Your task to perform on an android device: uninstall "Chime – Mobile Banking" Image 0: 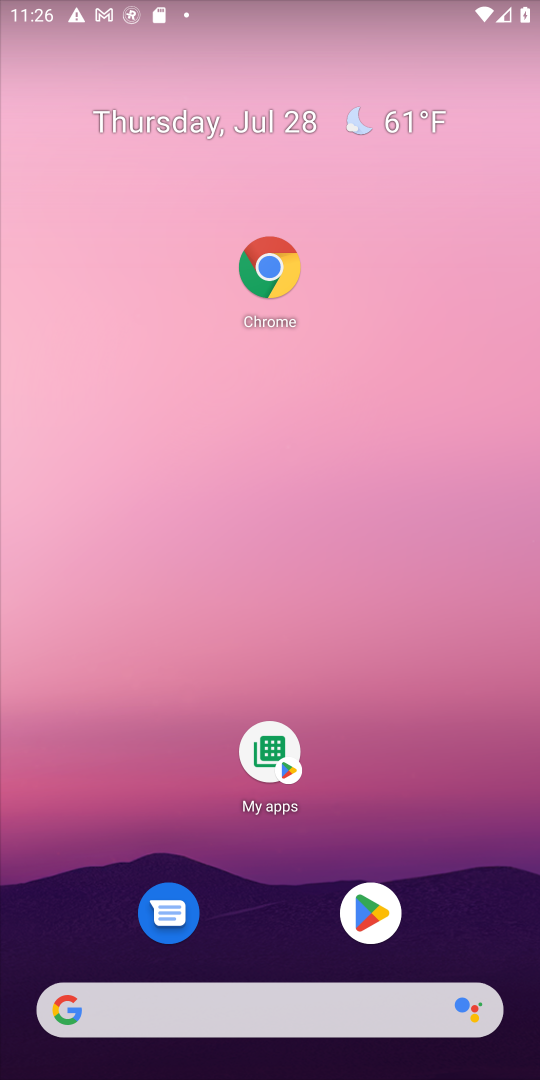
Step 0: click (367, 905)
Your task to perform on an android device: uninstall "Chime – Mobile Banking" Image 1: 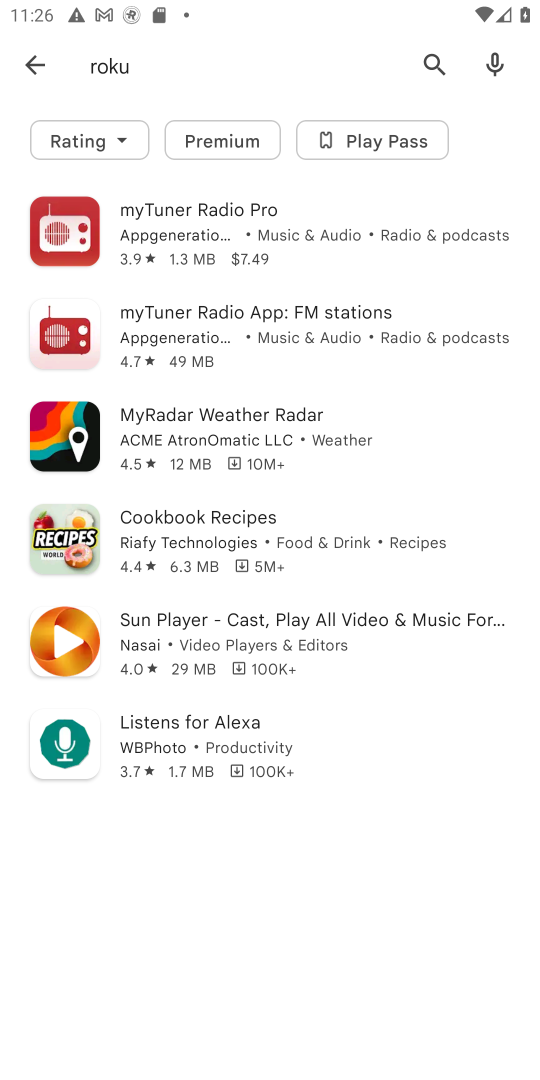
Step 1: click (442, 61)
Your task to perform on an android device: uninstall "Chime – Mobile Banking" Image 2: 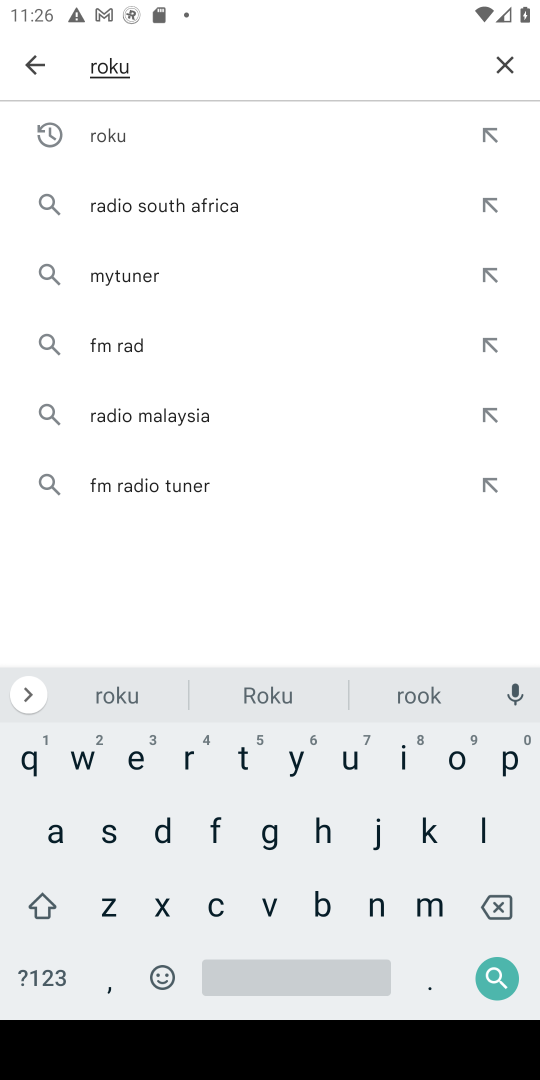
Step 2: click (502, 65)
Your task to perform on an android device: uninstall "Chime – Mobile Banking" Image 3: 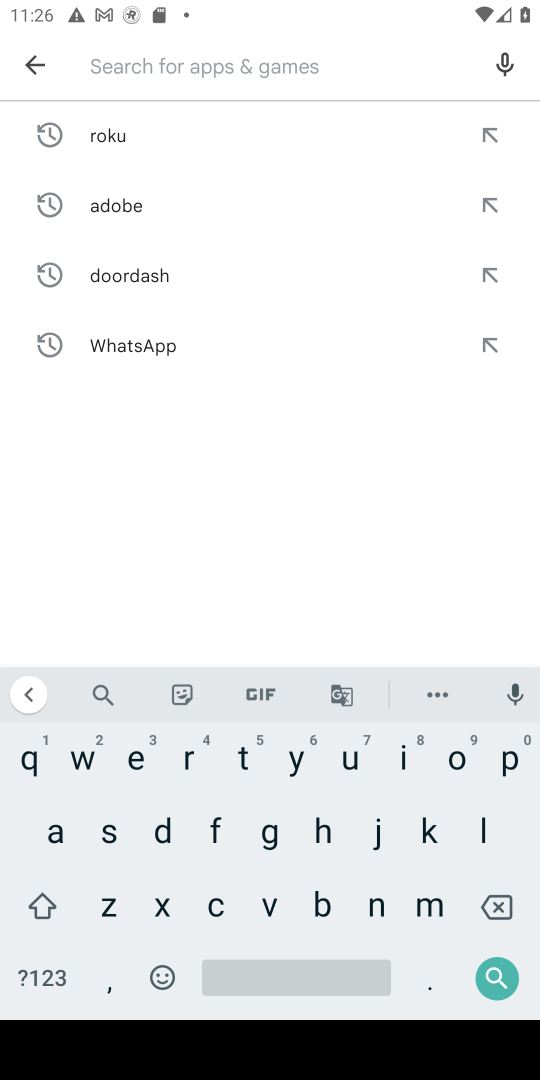
Step 3: click (212, 908)
Your task to perform on an android device: uninstall "Chime – Mobile Banking" Image 4: 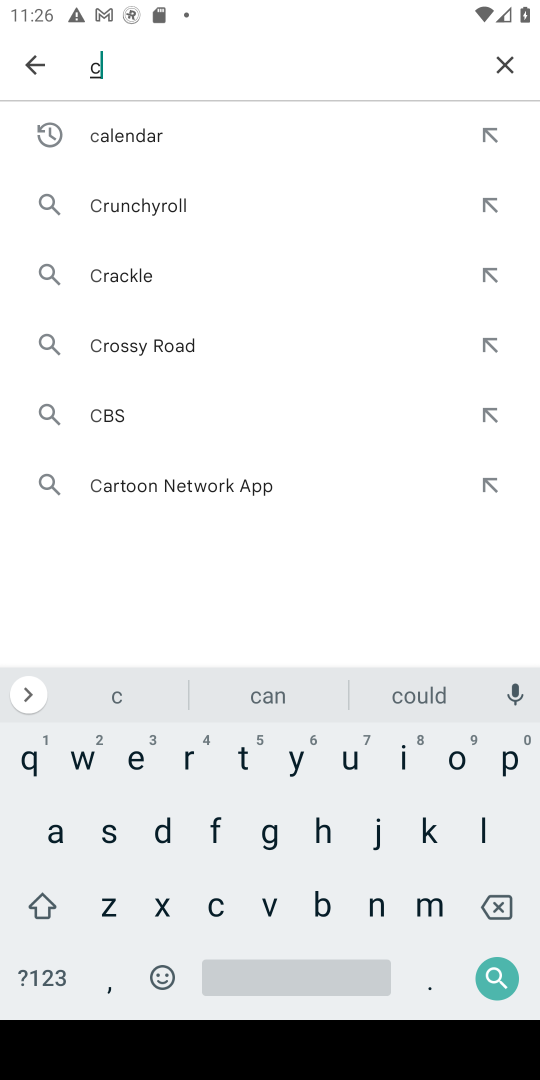
Step 4: click (325, 830)
Your task to perform on an android device: uninstall "Chime – Mobile Banking" Image 5: 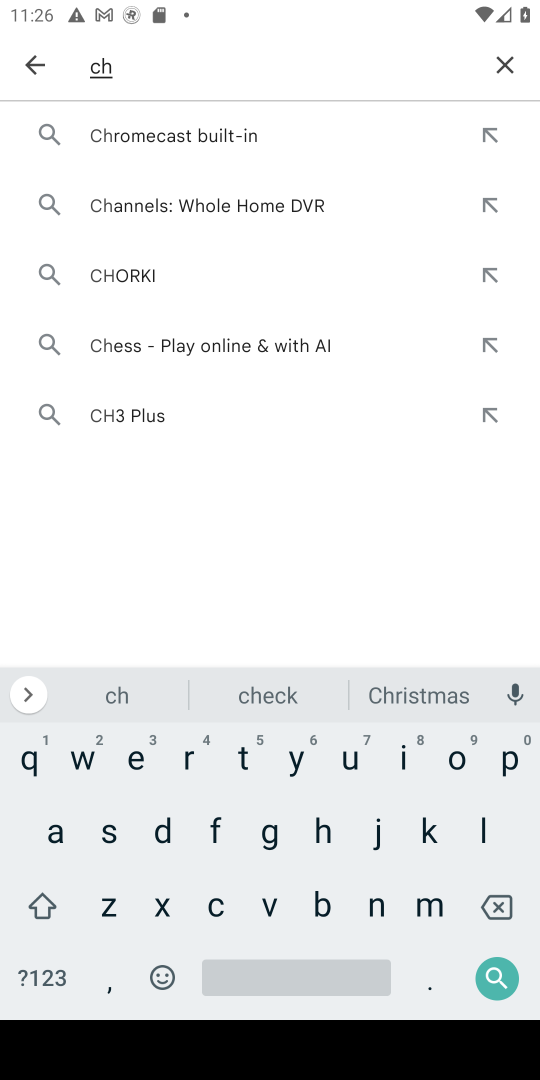
Step 5: click (403, 750)
Your task to perform on an android device: uninstall "Chime – Mobile Banking" Image 6: 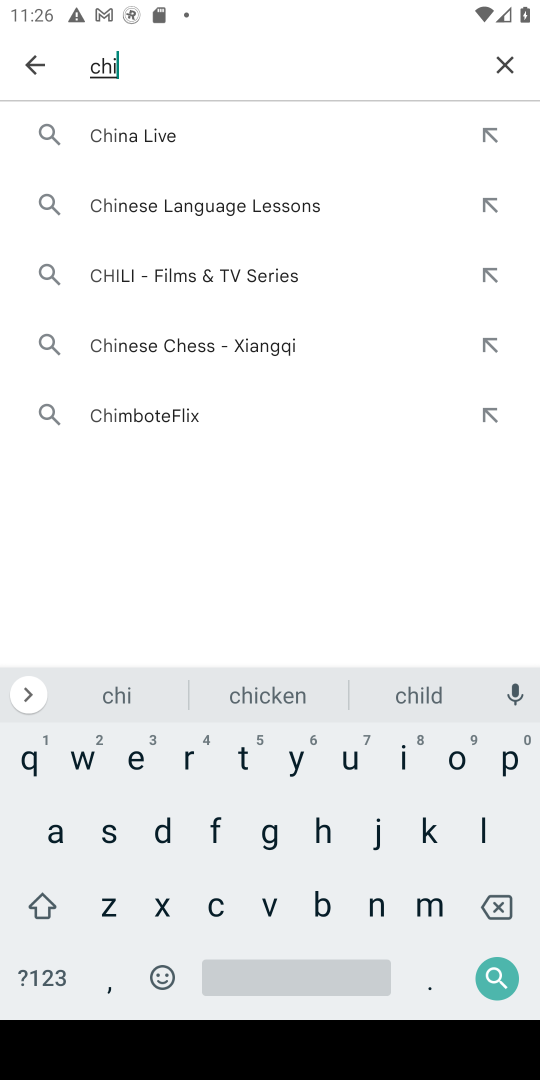
Step 6: click (426, 899)
Your task to perform on an android device: uninstall "Chime – Mobile Banking" Image 7: 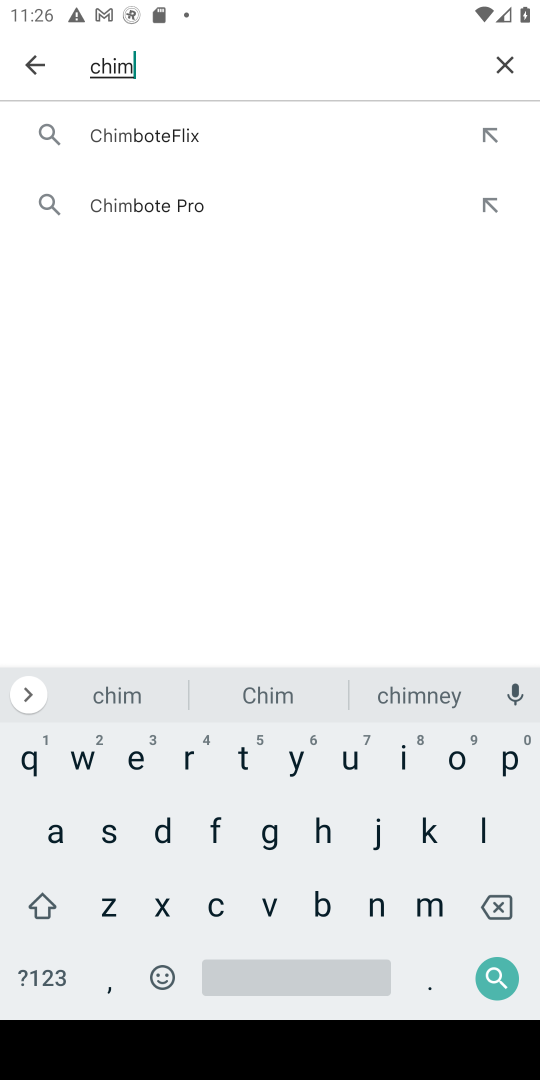
Step 7: click (138, 762)
Your task to perform on an android device: uninstall "Chime – Mobile Banking" Image 8: 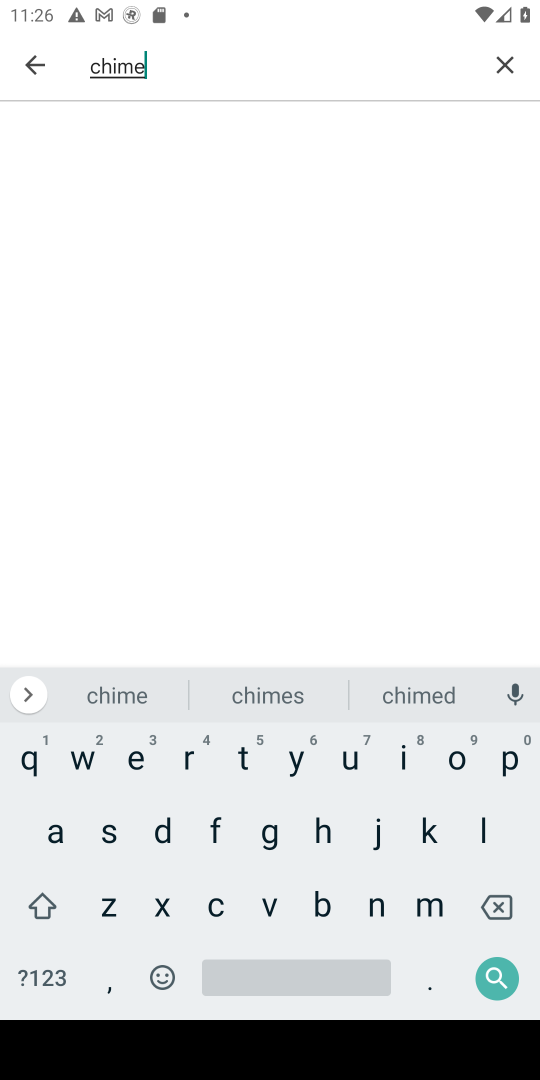
Step 8: click (495, 976)
Your task to perform on an android device: uninstall "Chime – Mobile Banking" Image 9: 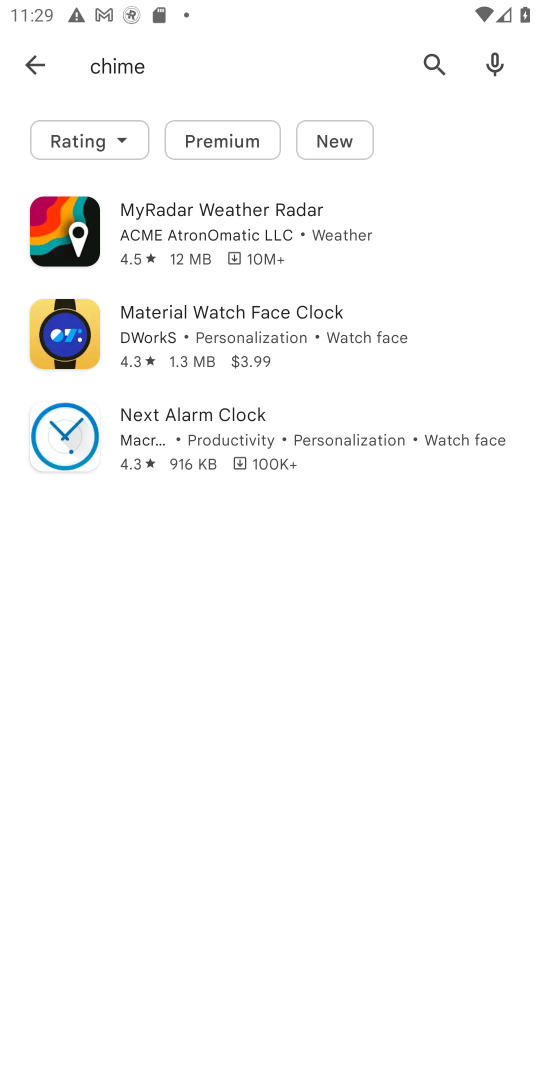
Step 9: task complete